Your task to perform on an android device: Open Youtube and go to the subscriptions tab Image 0: 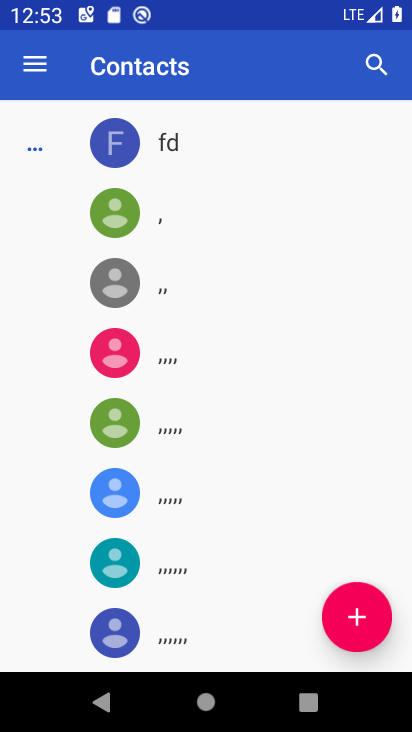
Step 0: press home button
Your task to perform on an android device: Open Youtube and go to the subscriptions tab Image 1: 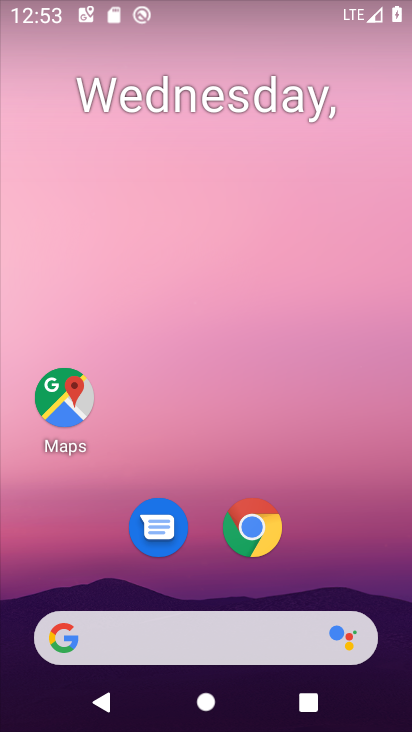
Step 1: drag from (264, 684) to (255, 88)
Your task to perform on an android device: Open Youtube and go to the subscriptions tab Image 2: 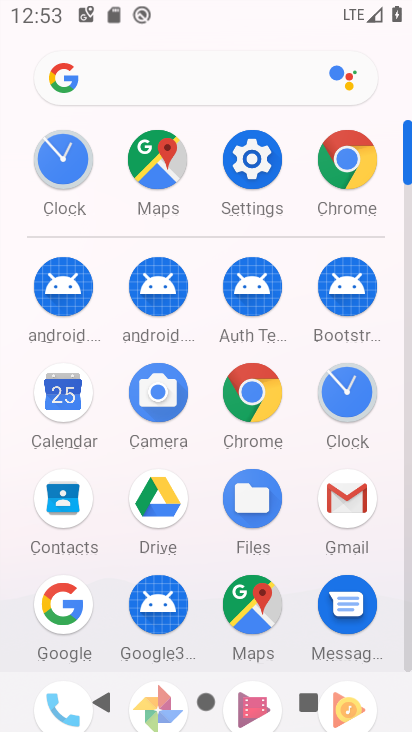
Step 2: drag from (300, 651) to (289, 205)
Your task to perform on an android device: Open Youtube and go to the subscriptions tab Image 3: 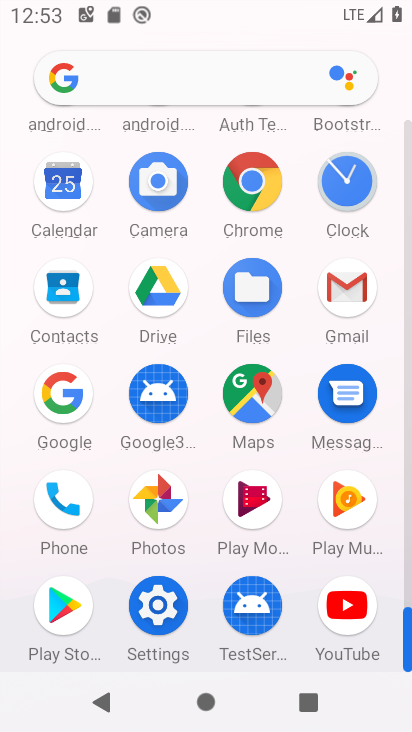
Step 3: click (356, 598)
Your task to perform on an android device: Open Youtube and go to the subscriptions tab Image 4: 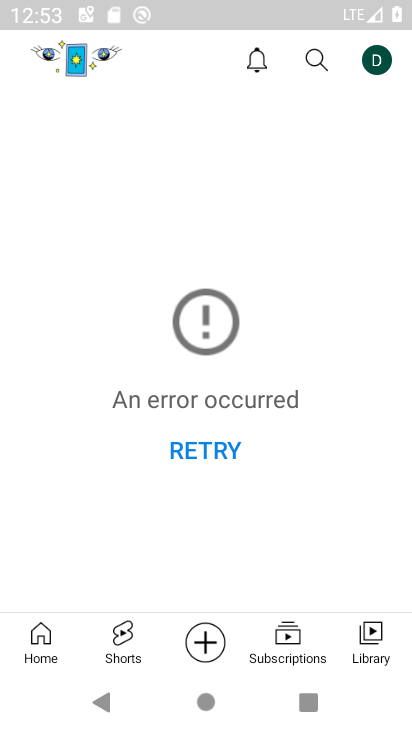
Step 4: click (302, 649)
Your task to perform on an android device: Open Youtube and go to the subscriptions tab Image 5: 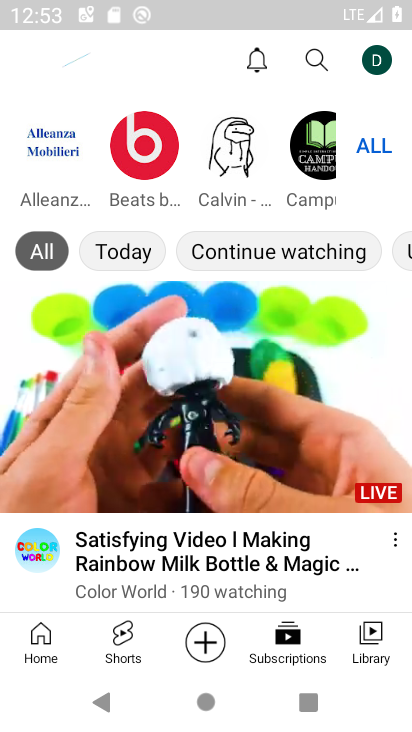
Step 5: task complete